Your task to perform on an android device: change your default location settings in chrome Image 0: 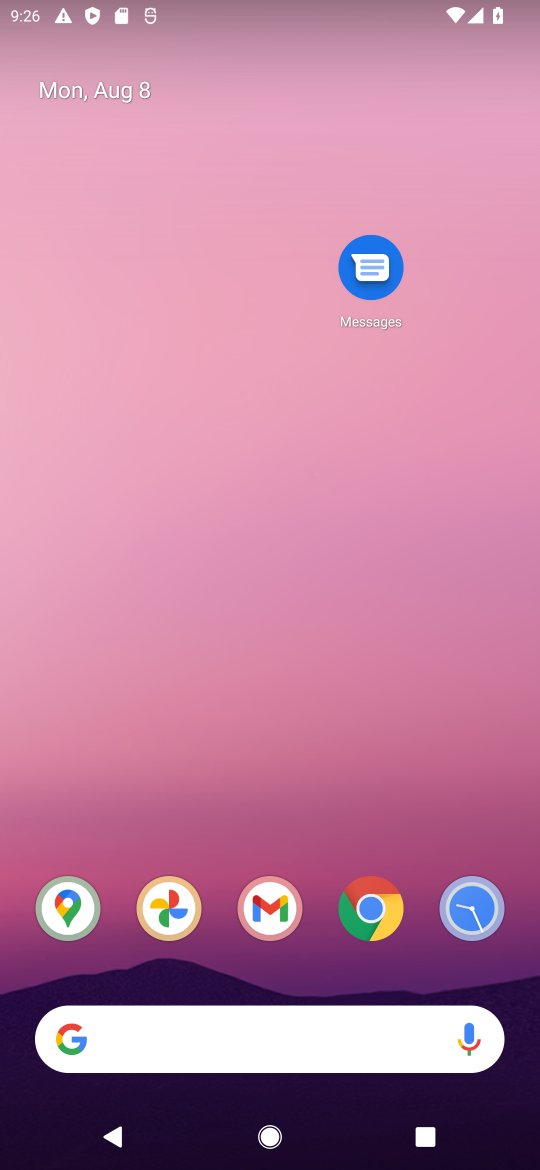
Step 0: click (87, 910)
Your task to perform on an android device: change your default location settings in chrome Image 1: 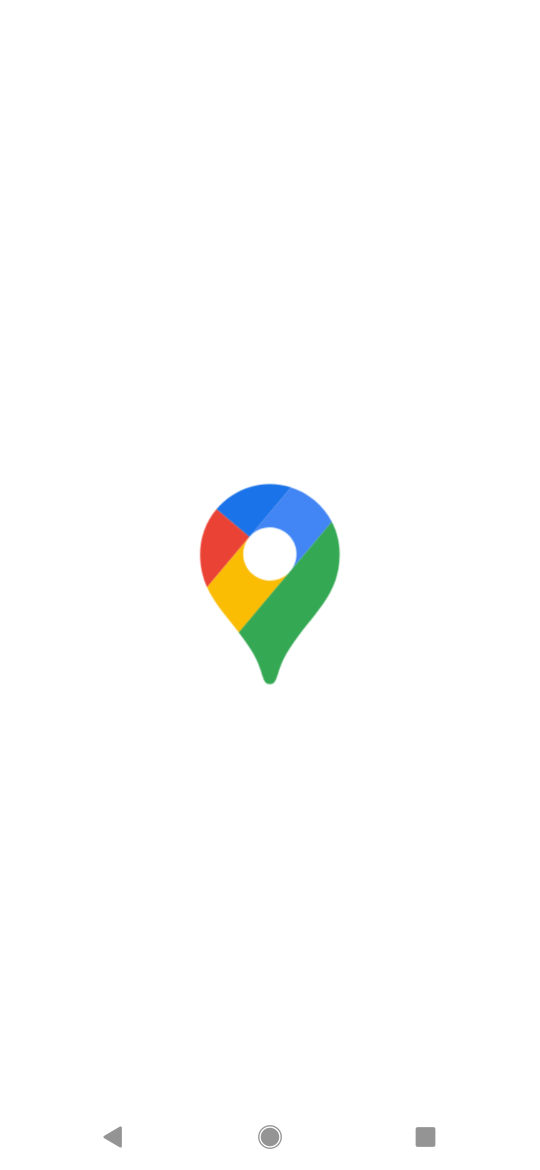
Step 1: press home button
Your task to perform on an android device: change your default location settings in chrome Image 2: 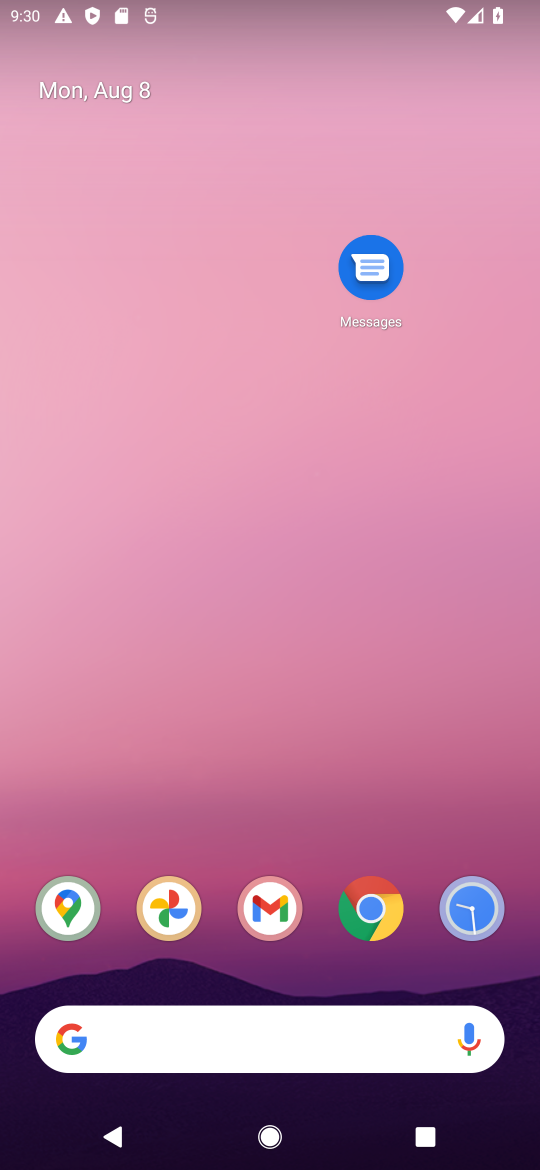
Step 2: click (392, 926)
Your task to perform on an android device: change your default location settings in chrome Image 3: 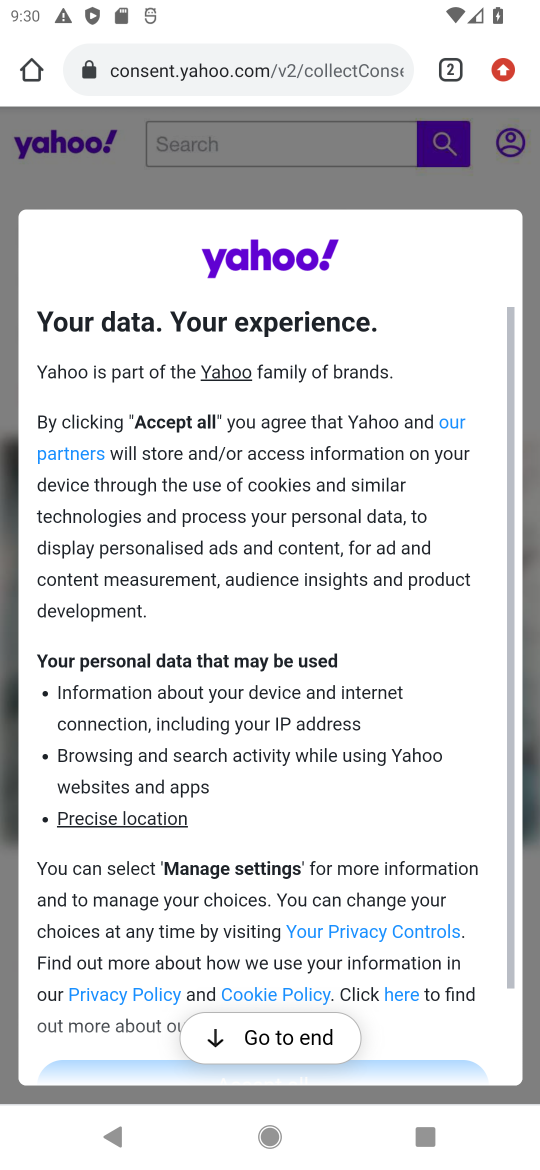
Step 3: click (506, 59)
Your task to perform on an android device: change your default location settings in chrome Image 4: 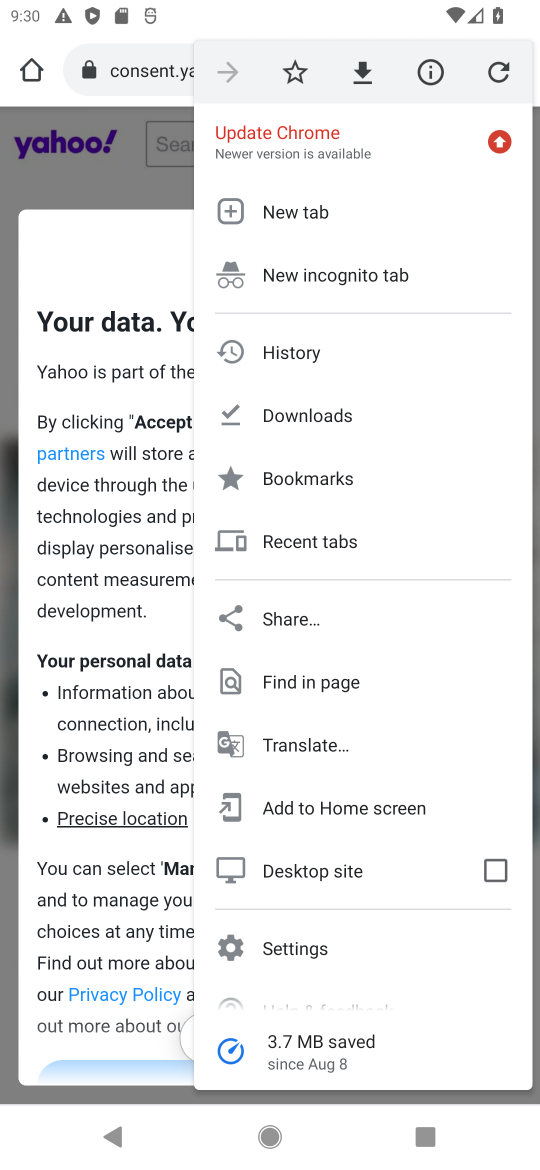
Step 4: click (311, 947)
Your task to perform on an android device: change your default location settings in chrome Image 5: 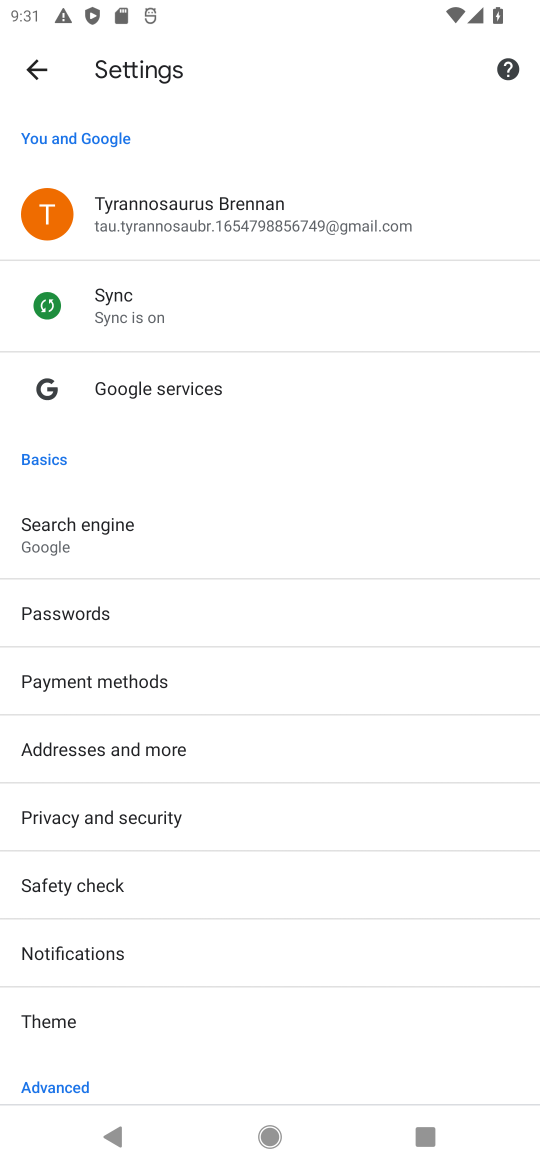
Step 5: drag from (146, 963) to (194, 91)
Your task to perform on an android device: change your default location settings in chrome Image 6: 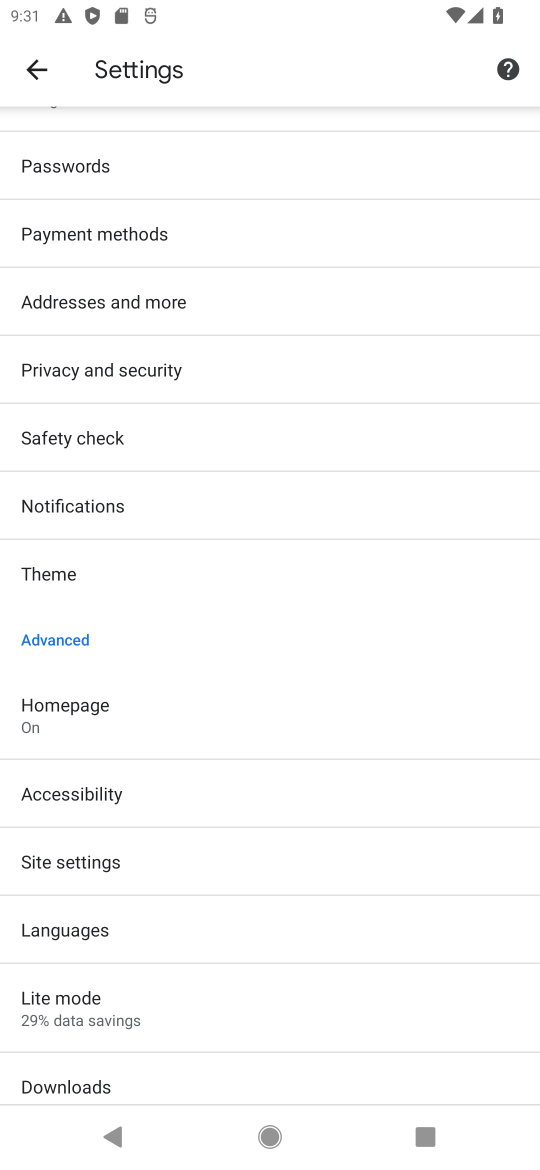
Step 6: drag from (103, 990) to (137, 285)
Your task to perform on an android device: change your default location settings in chrome Image 7: 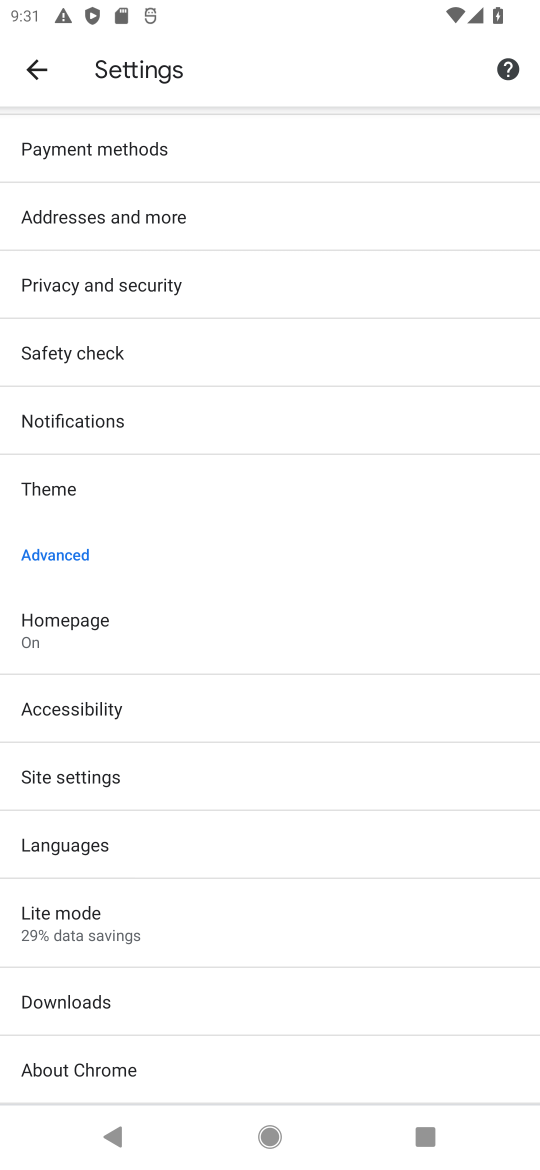
Step 7: drag from (215, 979) to (243, 246)
Your task to perform on an android device: change your default location settings in chrome Image 8: 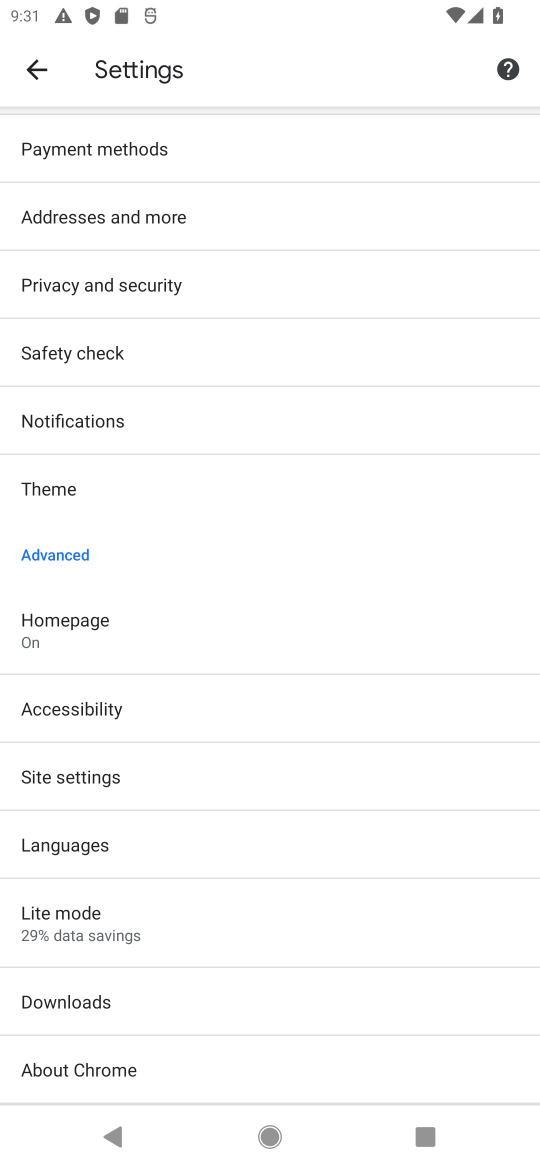
Step 8: click (159, 763)
Your task to perform on an android device: change your default location settings in chrome Image 9: 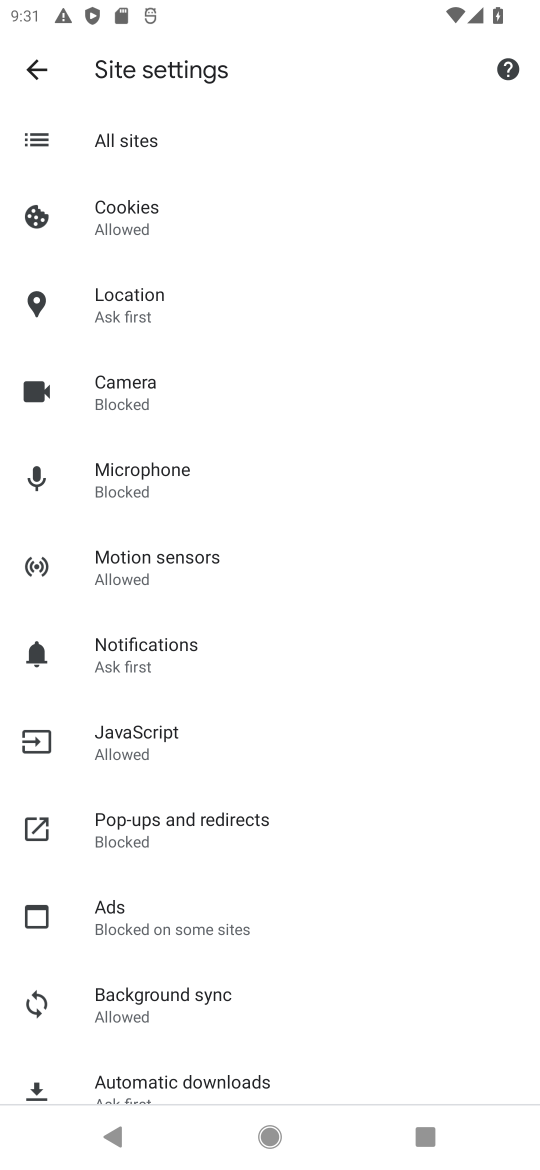
Step 9: click (184, 298)
Your task to perform on an android device: change your default location settings in chrome Image 10: 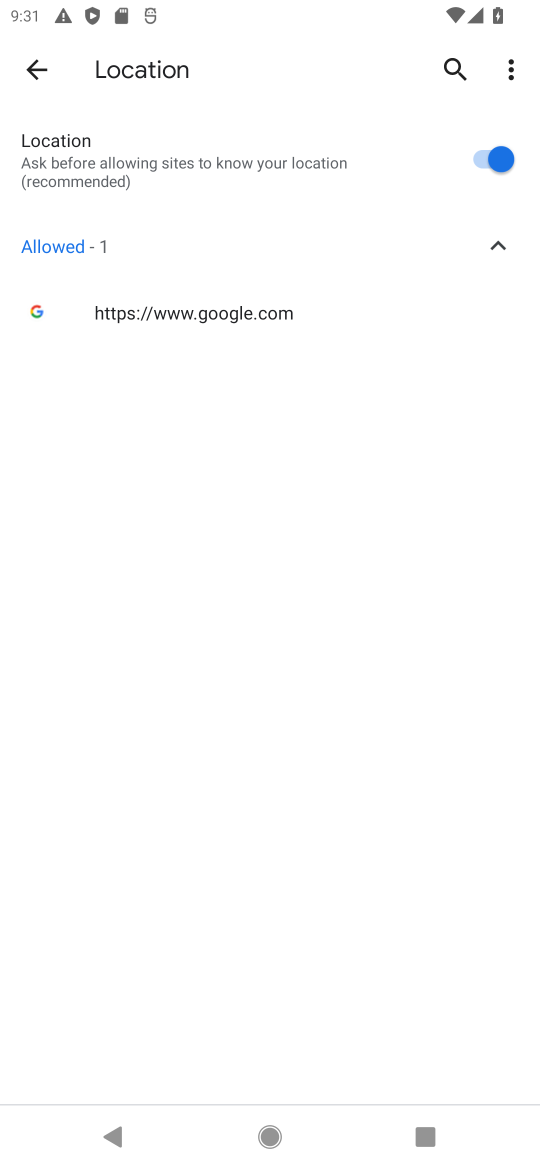
Step 10: click (474, 155)
Your task to perform on an android device: change your default location settings in chrome Image 11: 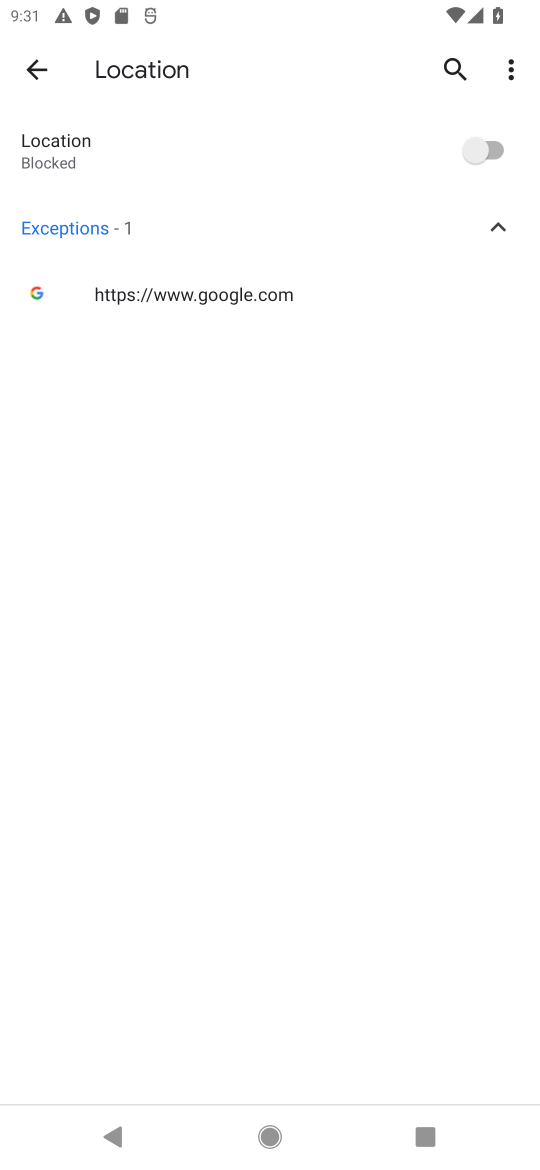
Step 11: task complete